Your task to perform on an android device: open app "Yahoo Mail" (install if not already installed) and go to login screen Image 0: 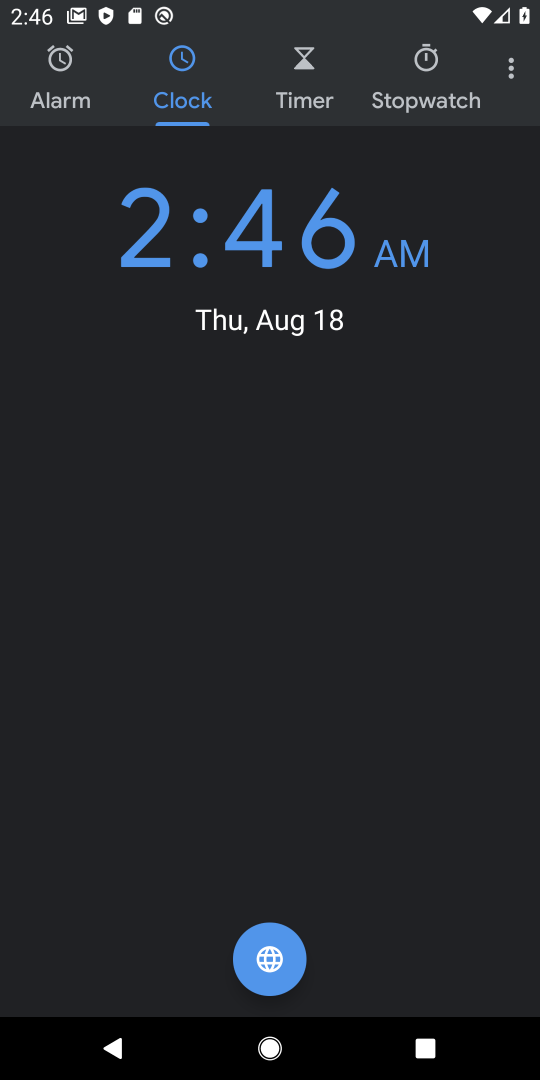
Step 0: press home button
Your task to perform on an android device: open app "Yahoo Mail" (install if not already installed) and go to login screen Image 1: 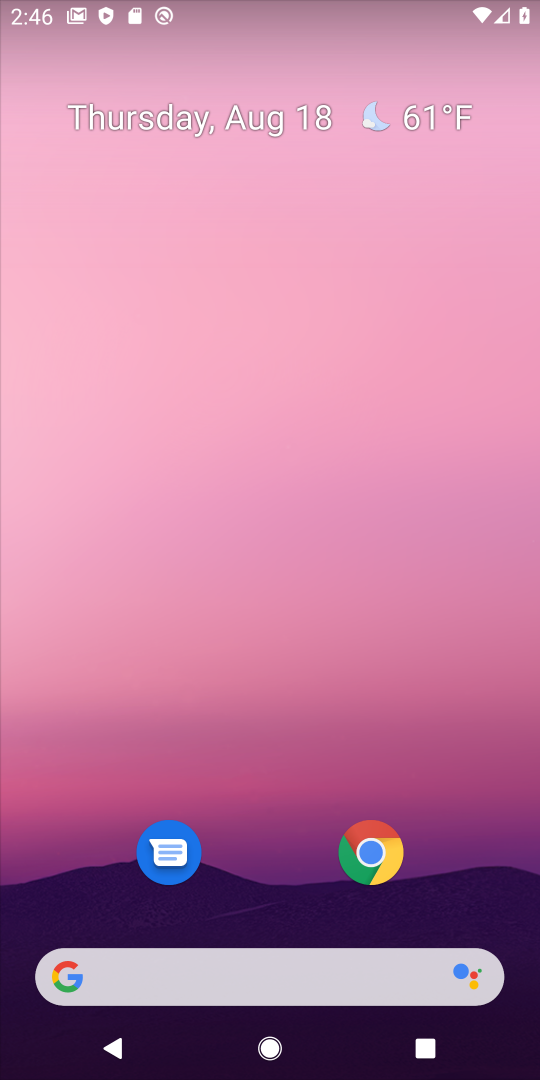
Step 1: drag from (285, 889) to (245, 1)
Your task to perform on an android device: open app "Yahoo Mail" (install if not already installed) and go to login screen Image 2: 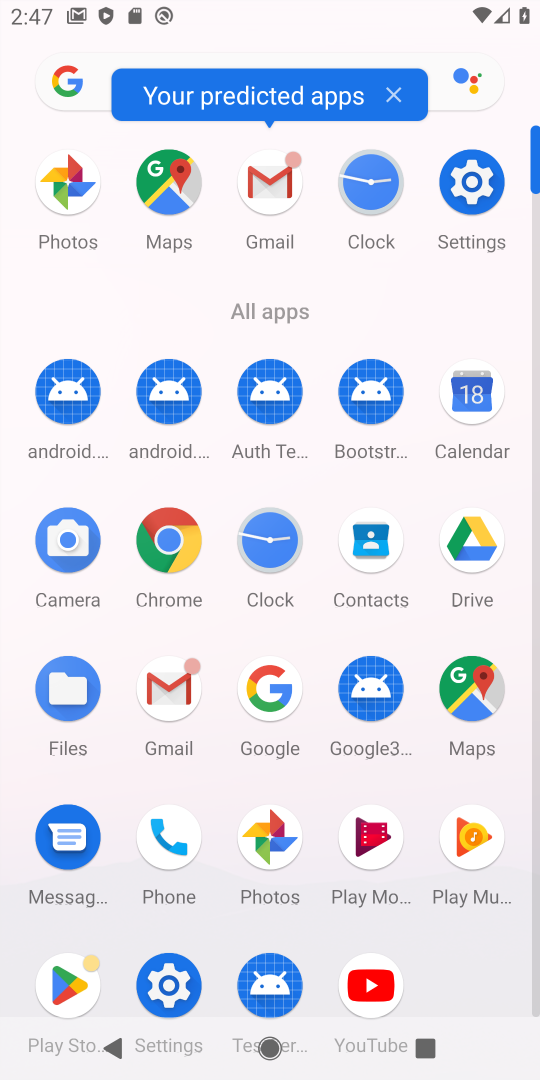
Step 2: click (60, 982)
Your task to perform on an android device: open app "Yahoo Mail" (install if not already installed) and go to login screen Image 3: 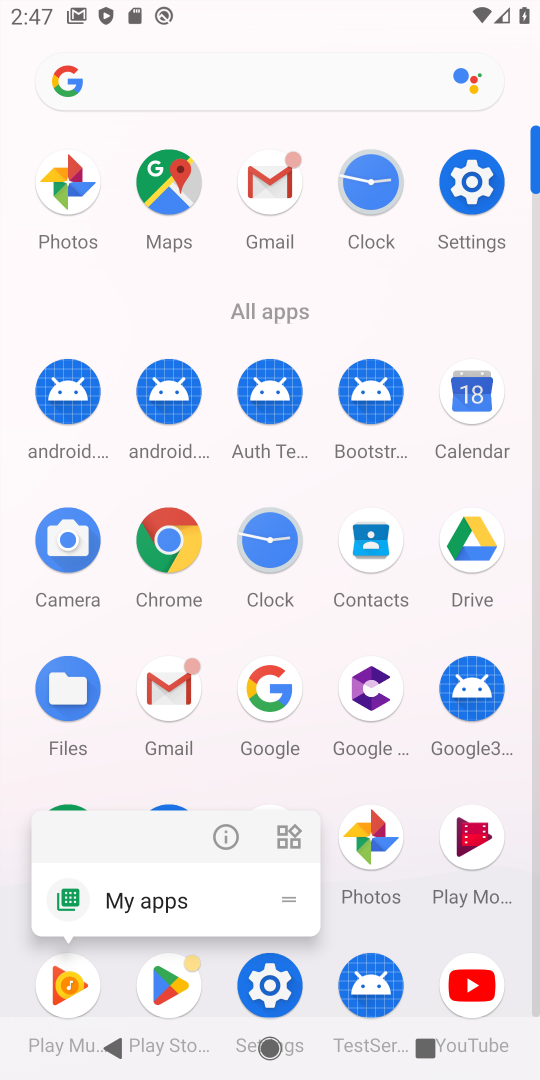
Step 3: click (153, 977)
Your task to perform on an android device: open app "Yahoo Mail" (install if not already installed) and go to login screen Image 4: 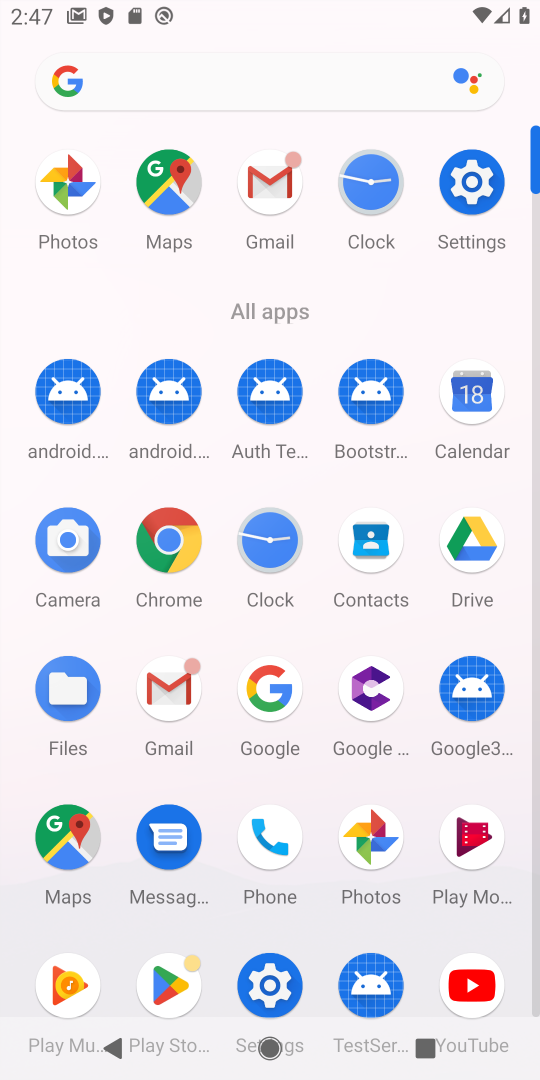
Step 4: click (160, 981)
Your task to perform on an android device: open app "Yahoo Mail" (install if not already installed) and go to login screen Image 5: 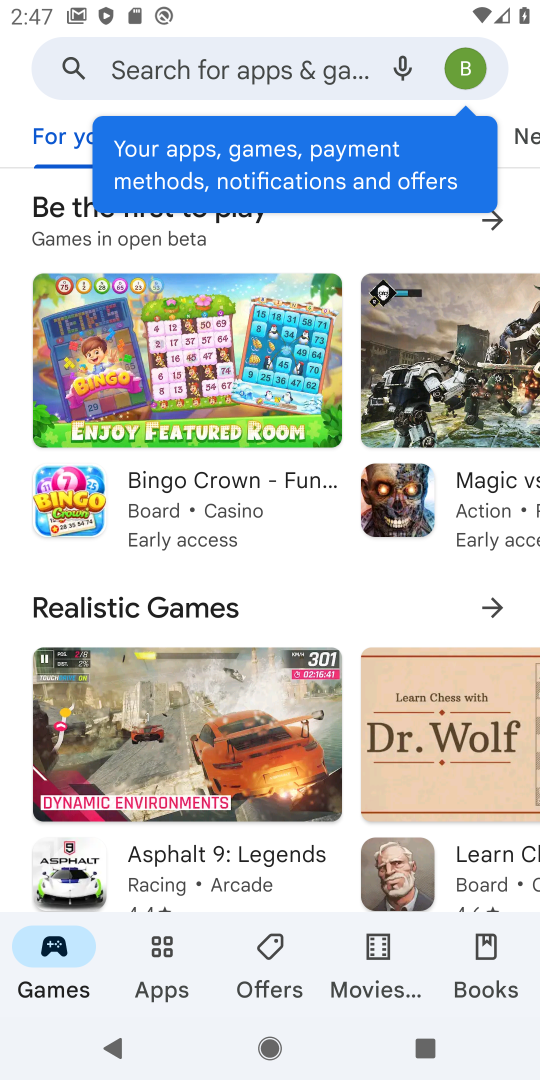
Step 5: click (173, 66)
Your task to perform on an android device: open app "Yahoo Mail" (install if not already installed) and go to login screen Image 6: 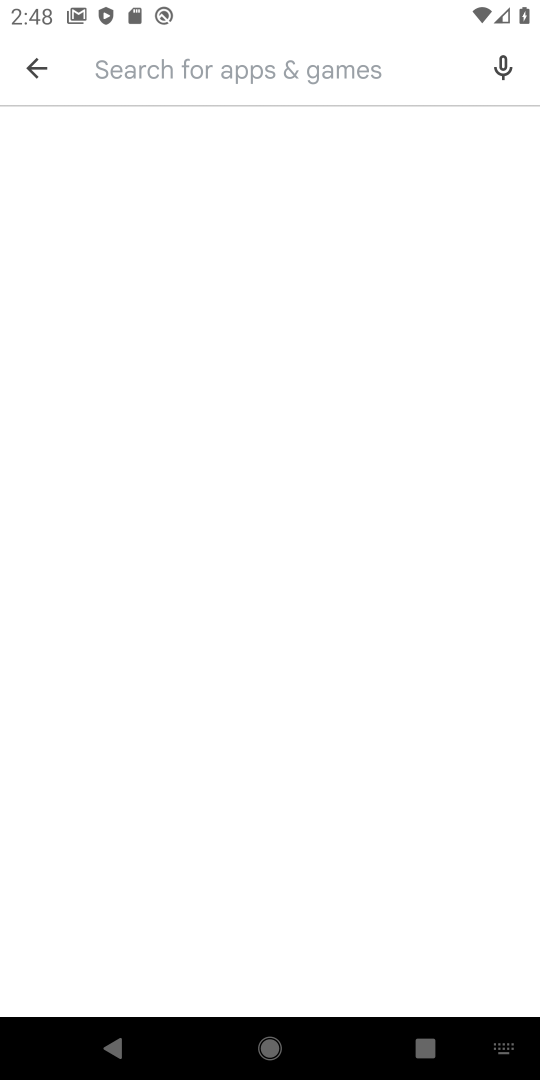
Step 6: type "Yahoo Mail"
Your task to perform on an android device: open app "Yahoo Mail" (install if not already installed) and go to login screen Image 7: 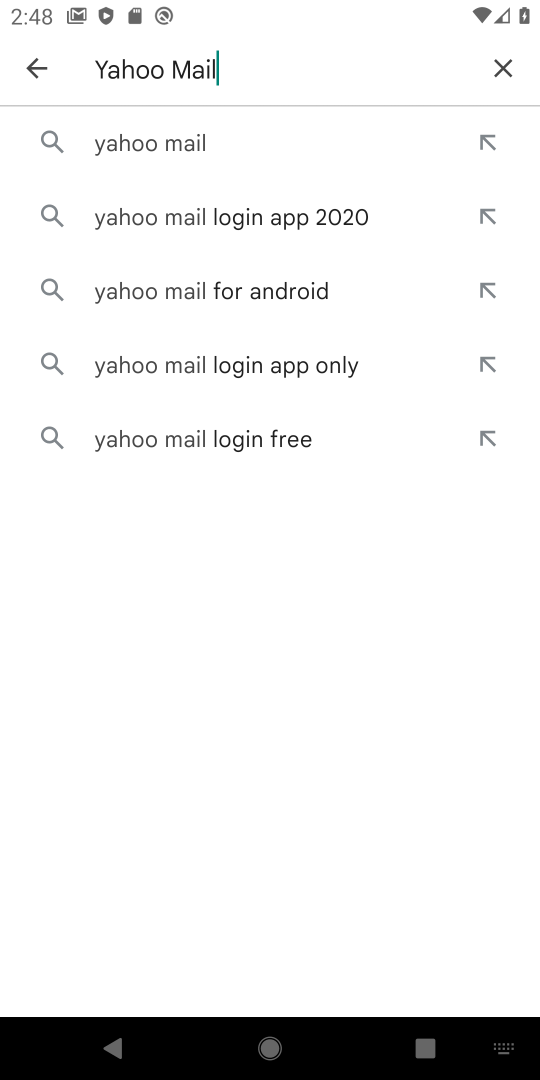
Step 7: click (244, 140)
Your task to perform on an android device: open app "Yahoo Mail" (install if not already installed) and go to login screen Image 8: 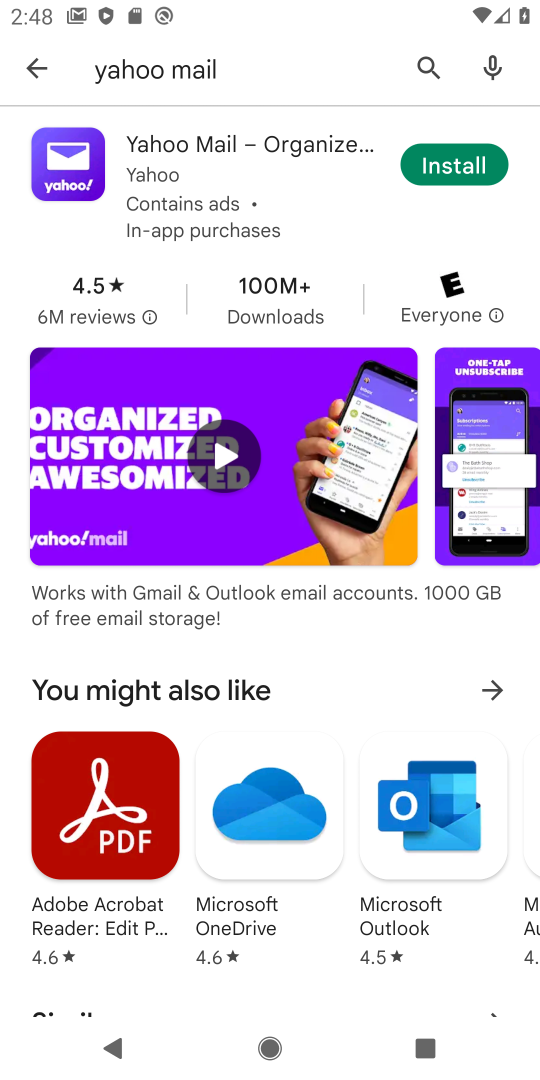
Step 8: click (454, 158)
Your task to perform on an android device: open app "Yahoo Mail" (install if not already installed) and go to login screen Image 9: 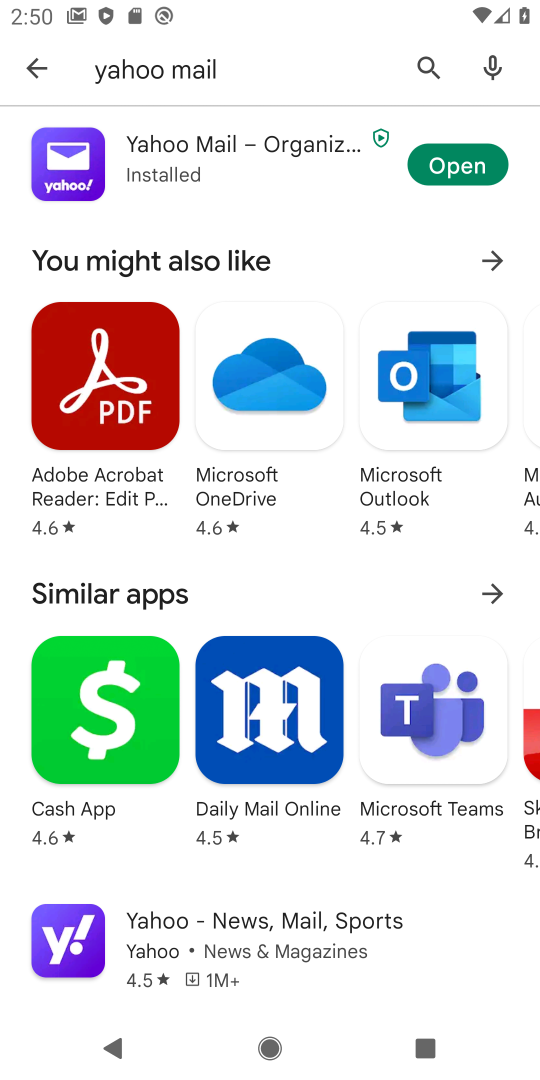
Step 9: click (464, 166)
Your task to perform on an android device: open app "Yahoo Mail" (install if not already installed) and go to login screen Image 10: 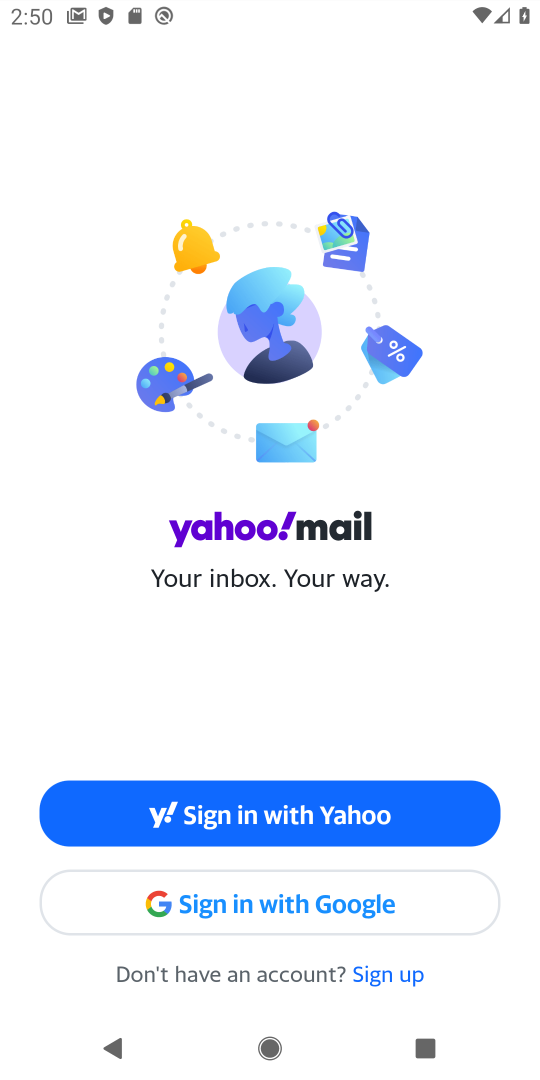
Step 10: click (267, 904)
Your task to perform on an android device: open app "Yahoo Mail" (install if not already installed) and go to login screen Image 11: 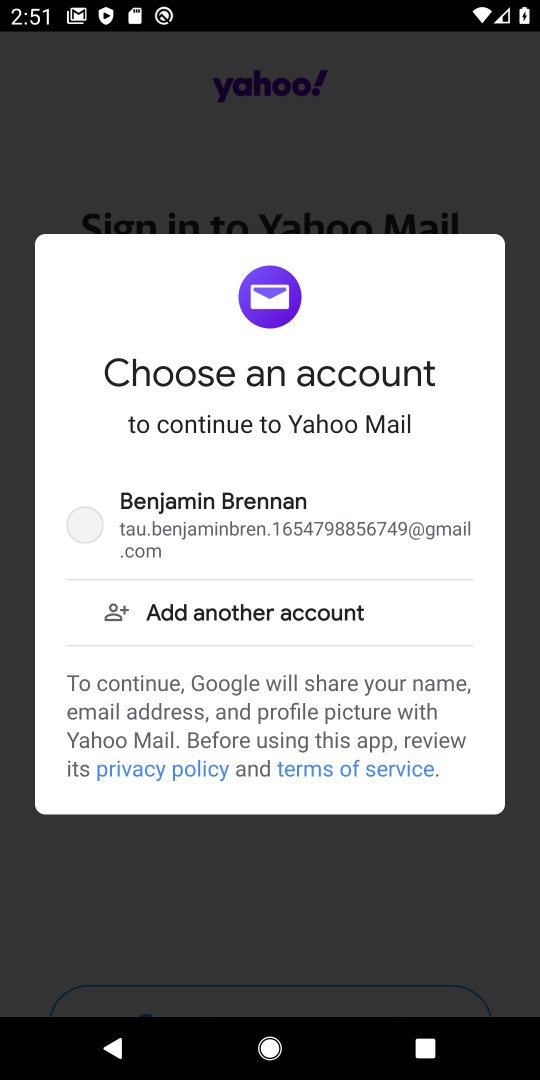
Step 11: click (167, 510)
Your task to perform on an android device: open app "Yahoo Mail" (install if not already installed) and go to login screen Image 12: 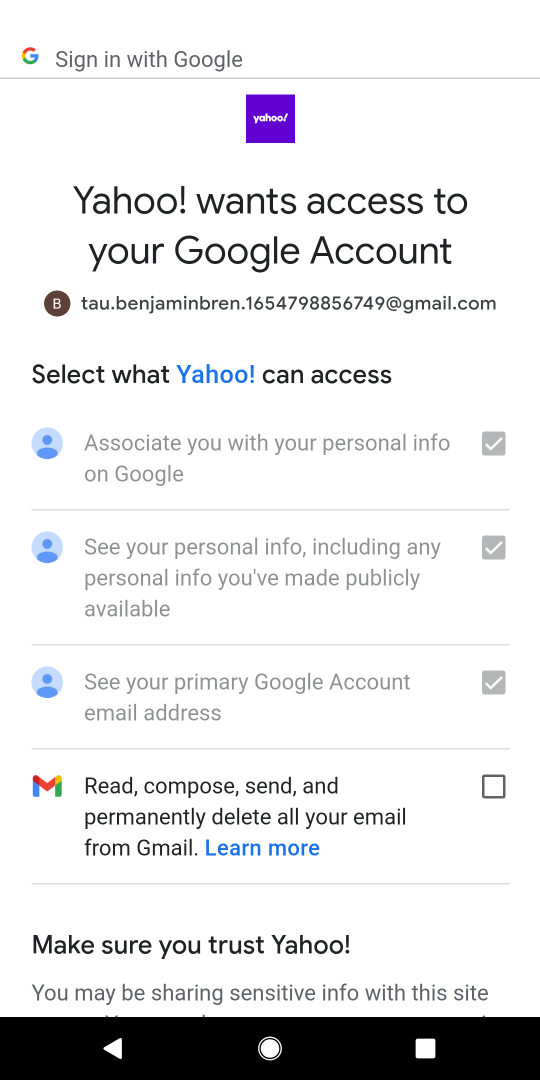
Step 12: drag from (371, 891) to (365, 20)
Your task to perform on an android device: open app "Yahoo Mail" (install if not already installed) and go to login screen Image 13: 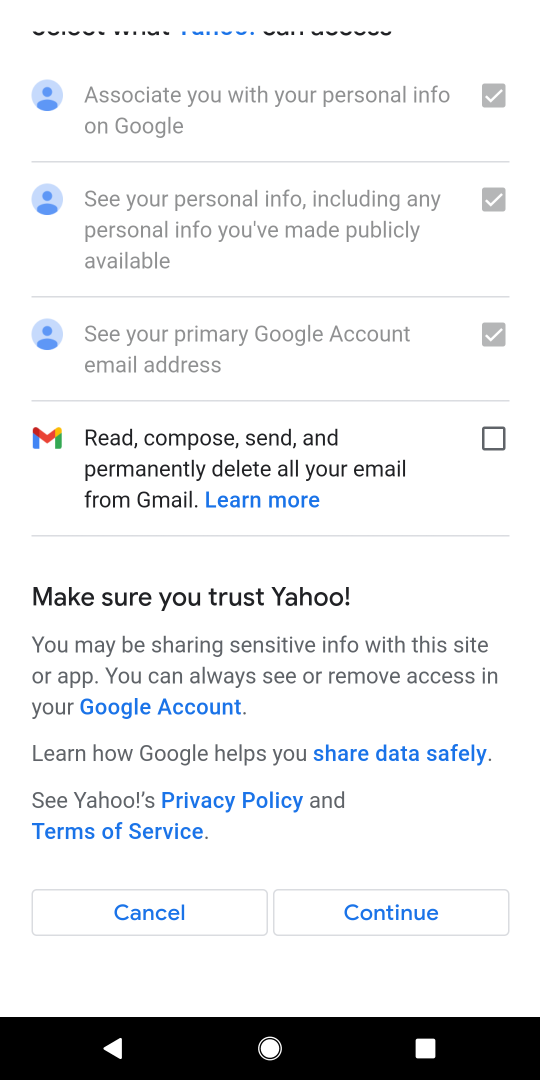
Step 13: click (390, 911)
Your task to perform on an android device: open app "Yahoo Mail" (install if not already installed) and go to login screen Image 14: 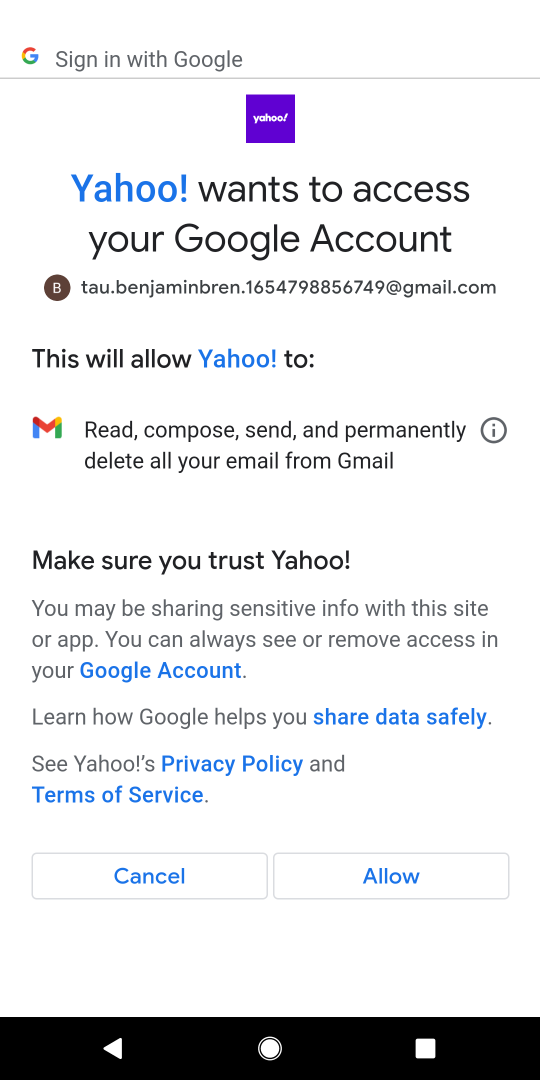
Step 14: click (395, 872)
Your task to perform on an android device: open app "Yahoo Mail" (install if not already installed) and go to login screen Image 15: 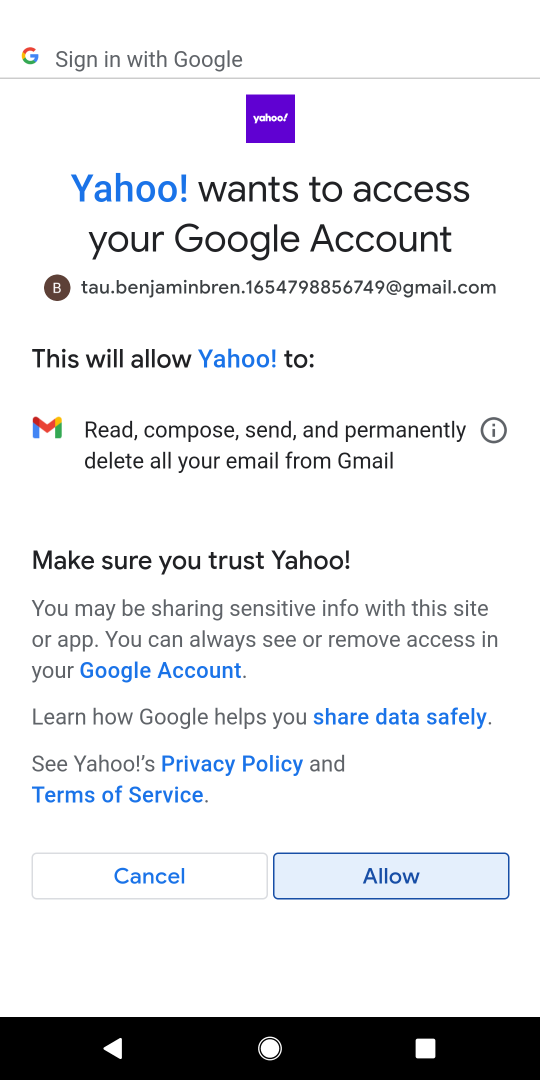
Step 15: click (408, 868)
Your task to perform on an android device: open app "Yahoo Mail" (install if not already installed) and go to login screen Image 16: 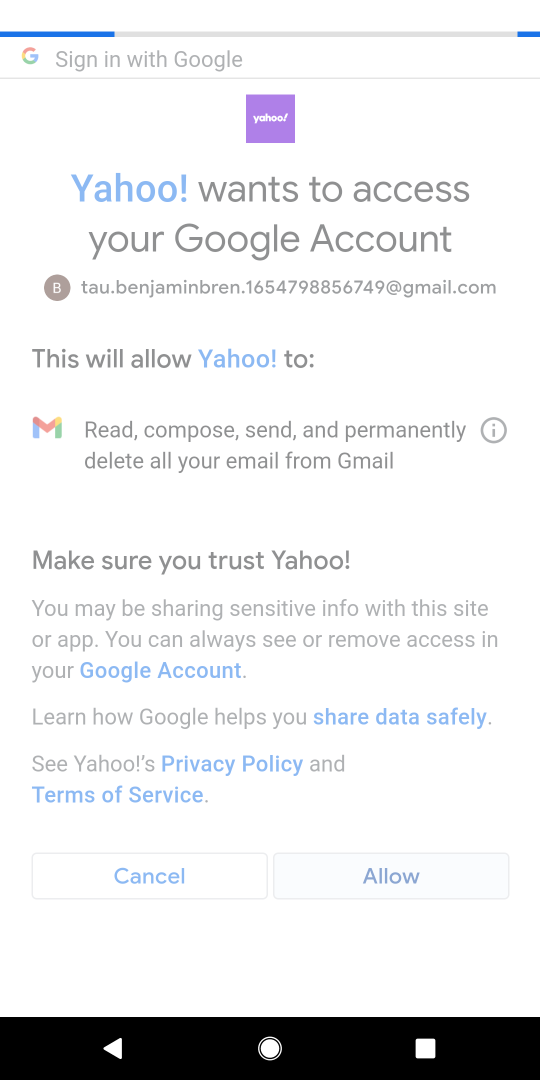
Step 16: task complete